Your task to perform on an android device: Open privacy settings Image 0: 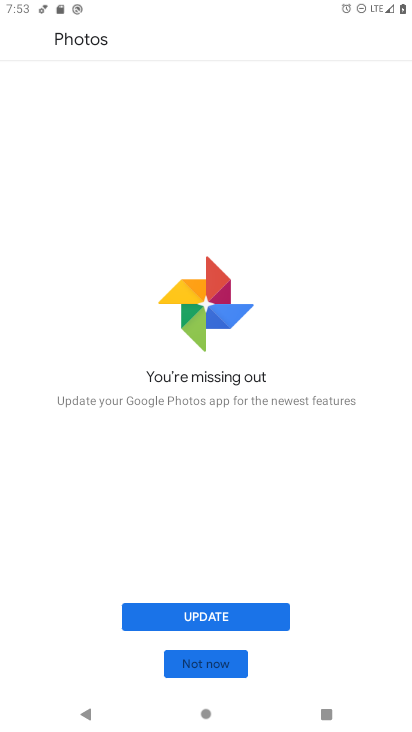
Step 0: press home button
Your task to perform on an android device: Open privacy settings Image 1: 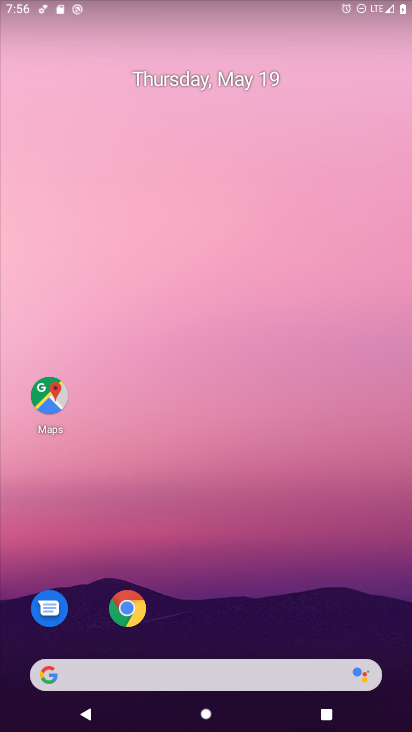
Step 1: click (128, 608)
Your task to perform on an android device: Open privacy settings Image 2: 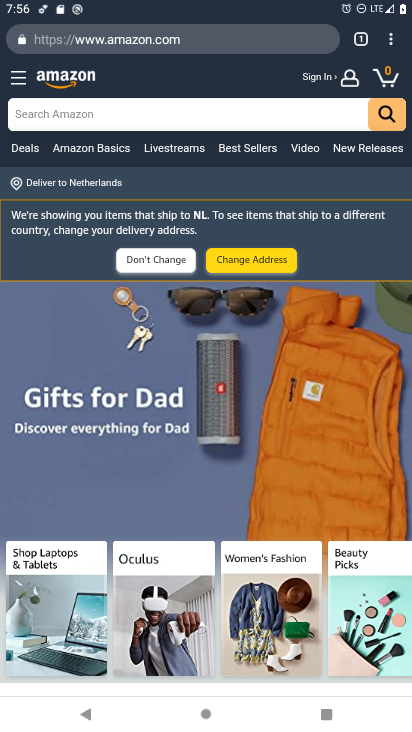
Step 2: click (390, 41)
Your task to perform on an android device: Open privacy settings Image 3: 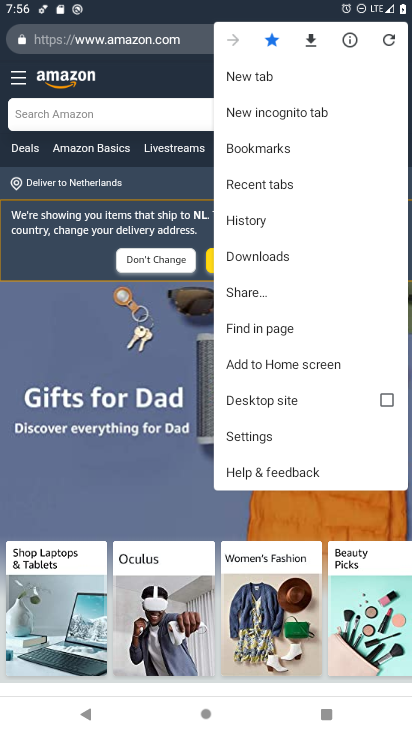
Step 3: click (246, 436)
Your task to perform on an android device: Open privacy settings Image 4: 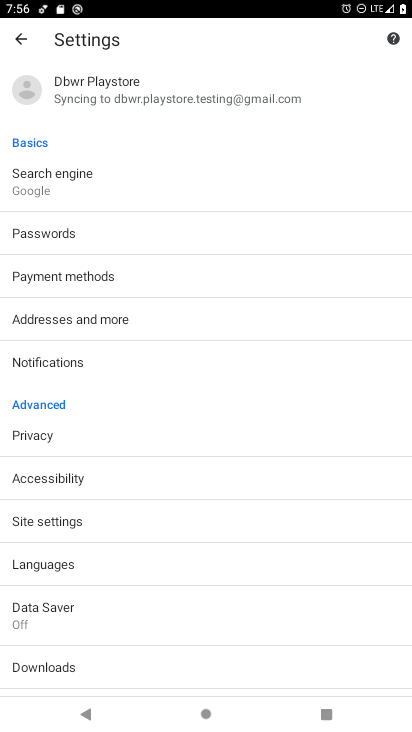
Step 4: click (26, 438)
Your task to perform on an android device: Open privacy settings Image 5: 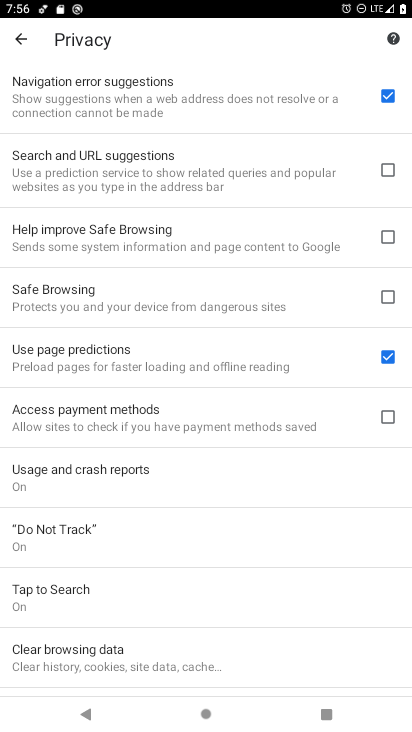
Step 5: task complete